Your task to perform on an android device: Go to ESPN.com Image 0: 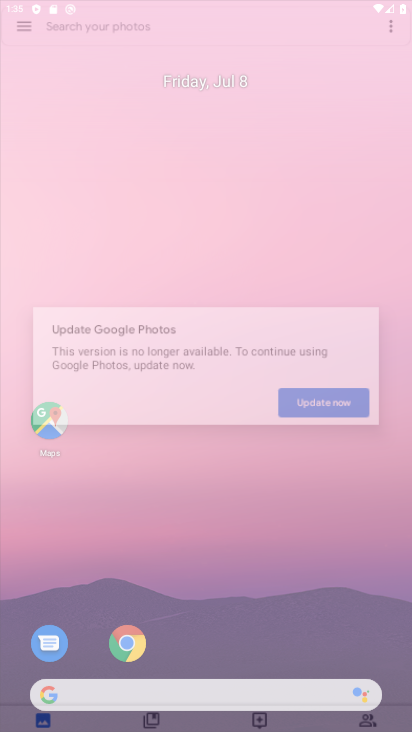
Step 0: drag from (228, 634) to (230, 333)
Your task to perform on an android device: Go to ESPN.com Image 1: 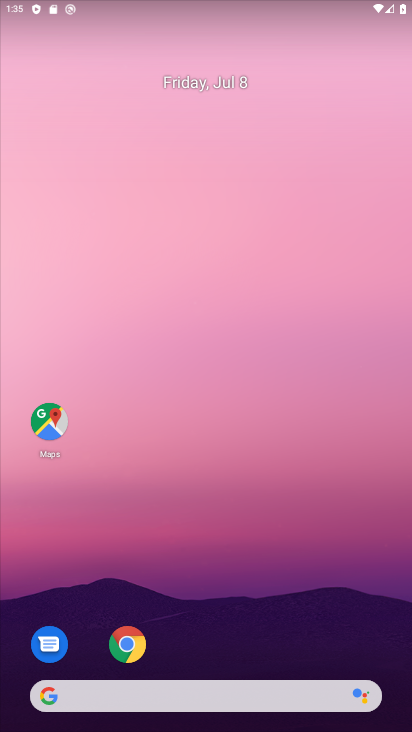
Step 1: drag from (267, 616) to (301, 187)
Your task to perform on an android device: Go to ESPN.com Image 2: 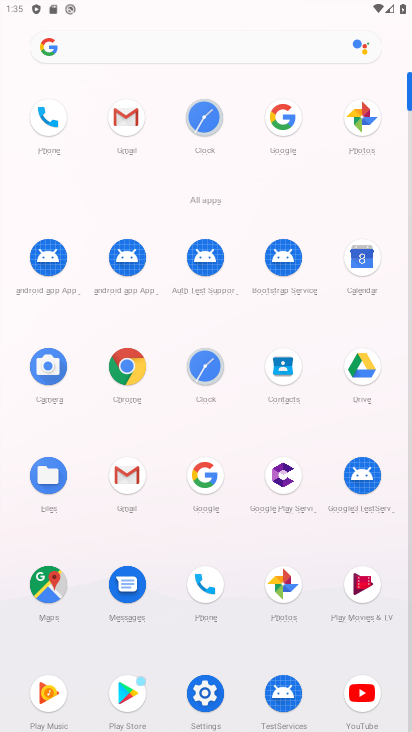
Step 2: click (282, 116)
Your task to perform on an android device: Go to ESPN.com Image 3: 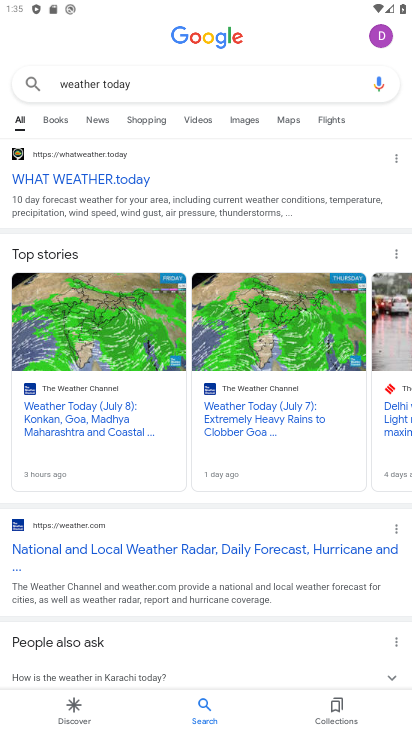
Step 3: click (170, 81)
Your task to perform on an android device: Go to ESPN.com Image 4: 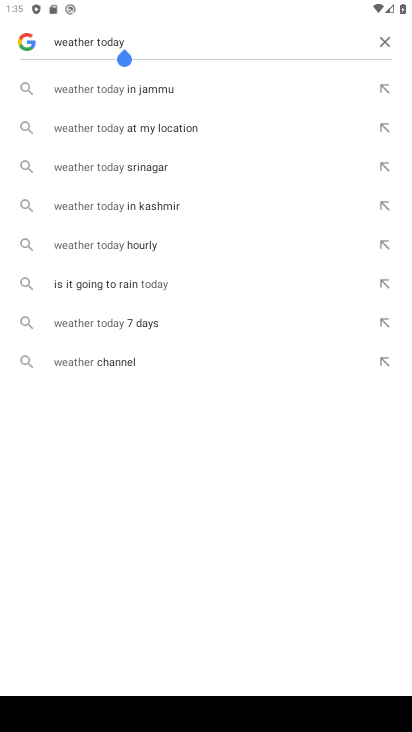
Step 4: click (380, 35)
Your task to perform on an android device: Go to ESPN.com Image 5: 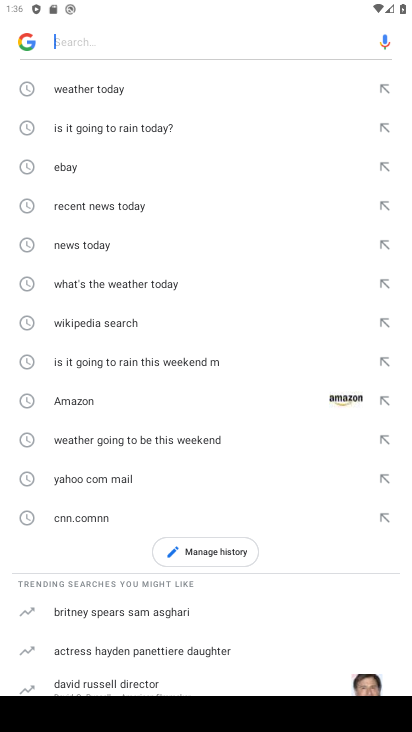
Step 5: type "espn.com"
Your task to perform on an android device: Go to ESPN.com Image 6: 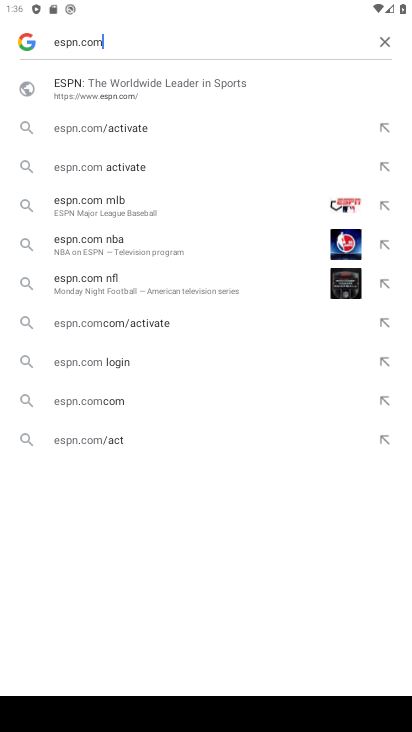
Step 6: click (174, 82)
Your task to perform on an android device: Go to ESPN.com Image 7: 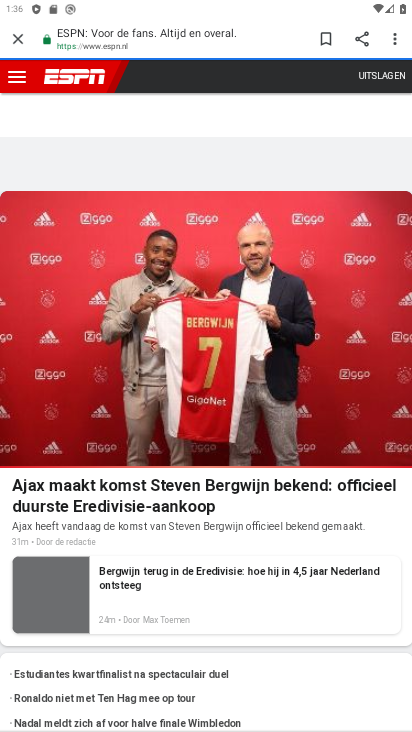
Step 7: task complete